Your task to perform on an android device: Do I have any events this weekend? Image 0: 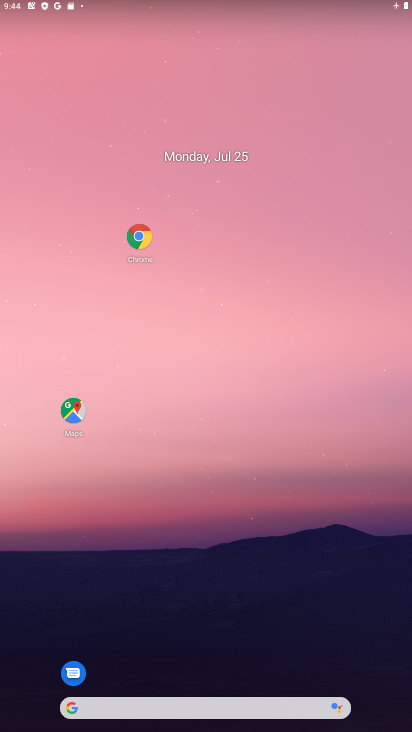
Step 0: drag from (258, 686) to (292, 144)
Your task to perform on an android device: Do I have any events this weekend? Image 1: 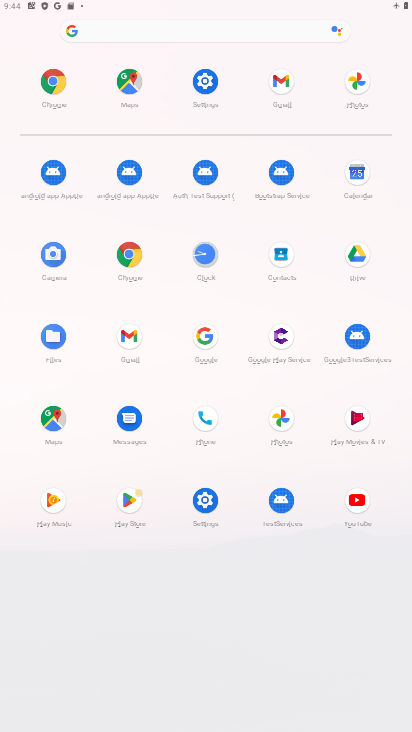
Step 1: click (353, 173)
Your task to perform on an android device: Do I have any events this weekend? Image 2: 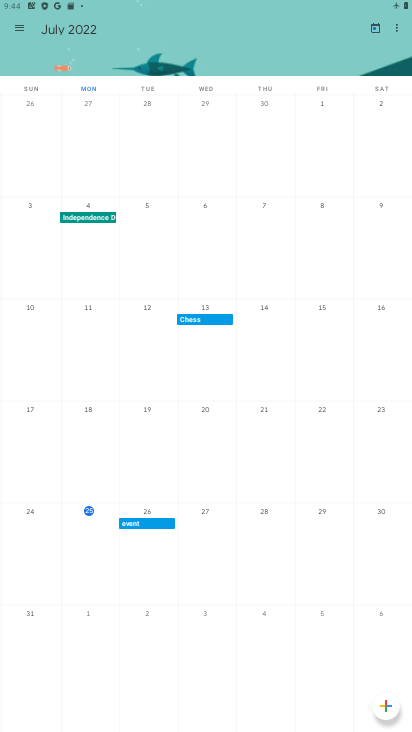
Step 2: task complete